Your task to perform on an android device: toggle airplane mode Image 0: 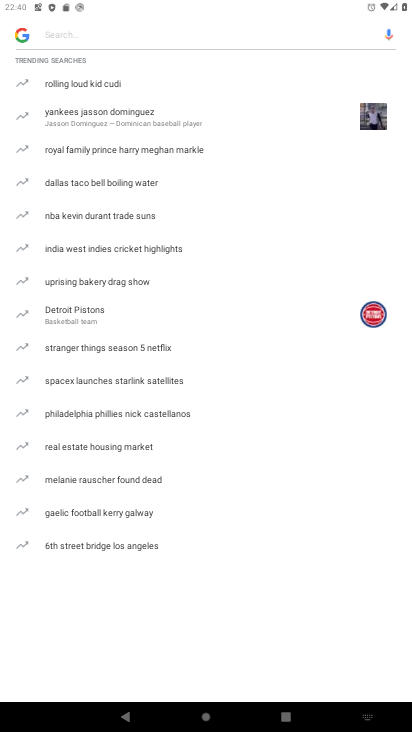
Step 0: press home button
Your task to perform on an android device: toggle airplane mode Image 1: 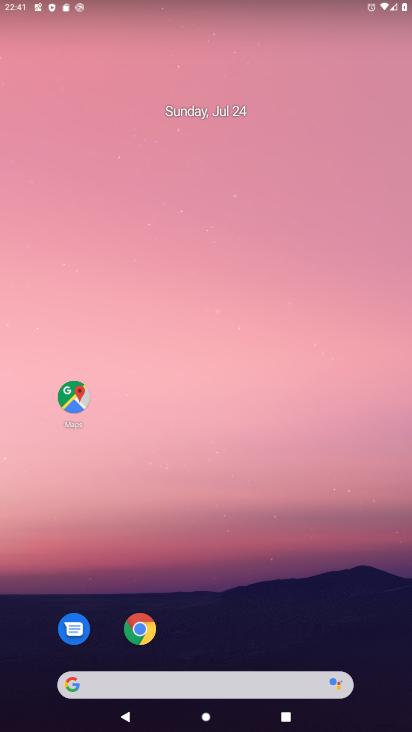
Step 1: drag from (197, 633) to (282, 338)
Your task to perform on an android device: toggle airplane mode Image 2: 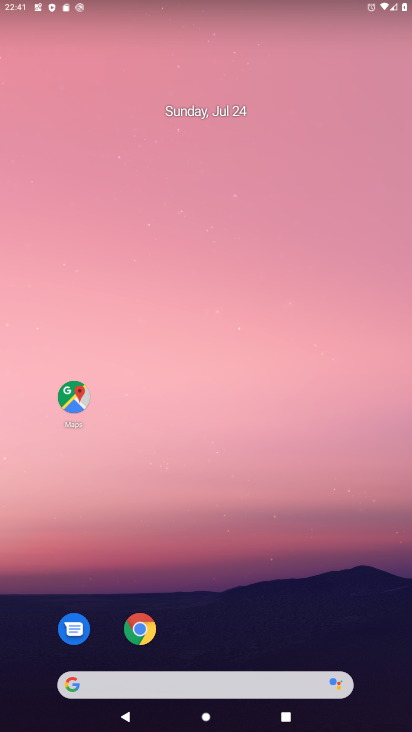
Step 2: drag from (180, 669) to (272, 414)
Your task to perform on an android device: toggle airplane mode Image 3: 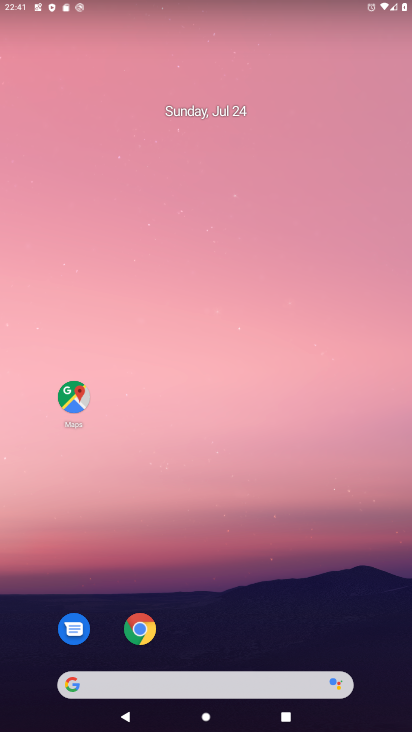
Step 3: drag from (205, 640) to (279, 249)
Your task to perform on an android device: toggle airplane mode Image 4: 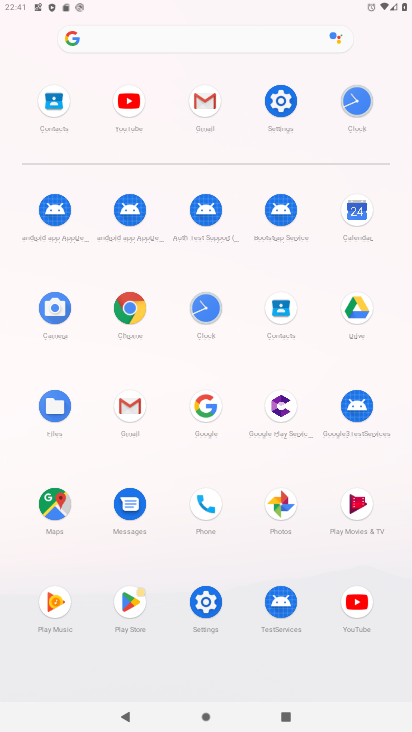
Step 4: click (269, 97)
Your task to perform on an android device: toggle airplane mode Image 5: 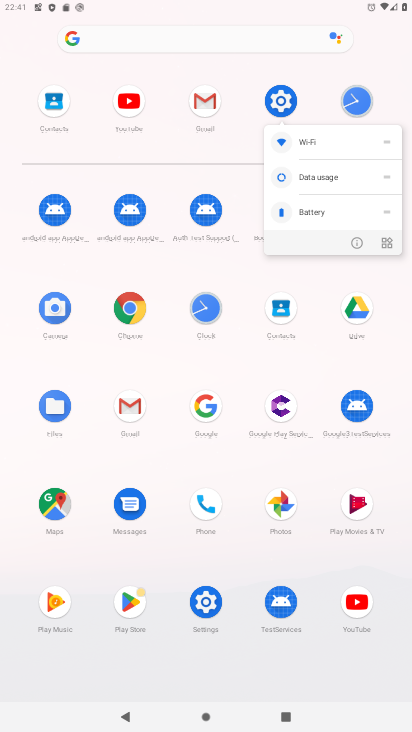
Step 5: click (213, 607)
Your task to perform on an android device: toggle airplane mode Image 6: 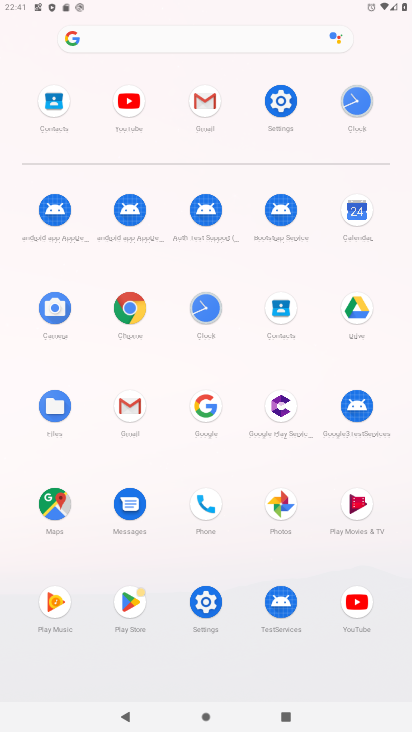
Step 6: click (212, 603)
Your task to perform on an android device: toggle airplane mode Image 7: 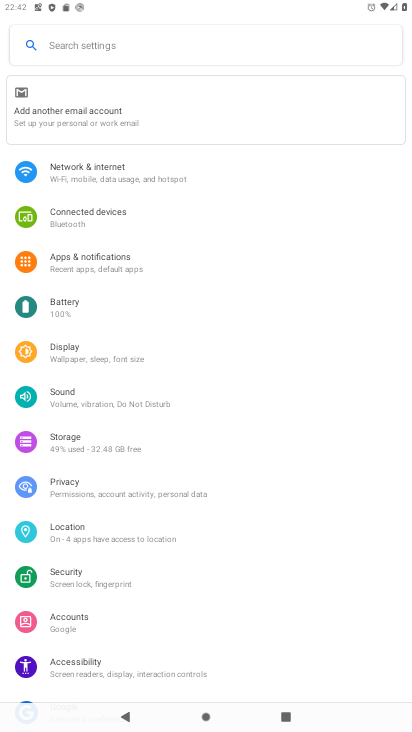
Step 7: drag from (125, 501) to (184, 290)
Your task to perform on an android device: toggle airplane mode Image 8: 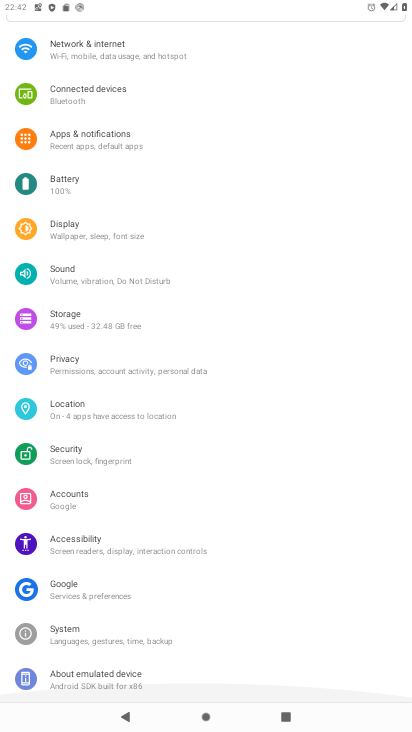
Step 8: drag from (217, 217) to (286, 711)
Your task to perform on an android device: toggle airplane mode Image 9: 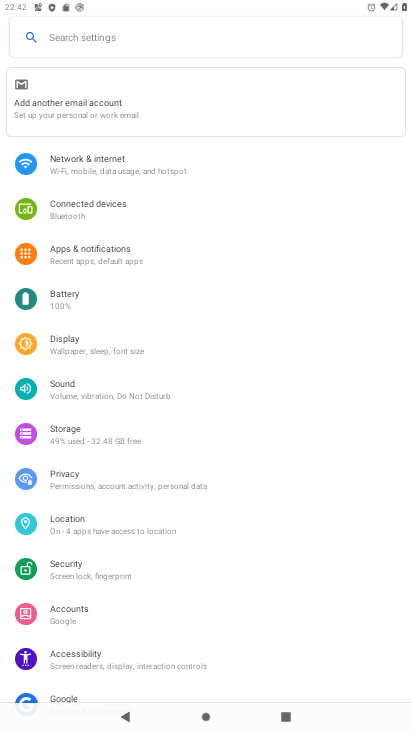
Step 9: click (192, 120)
Your task to perform on an android device: toggle airplane mode Image 10: 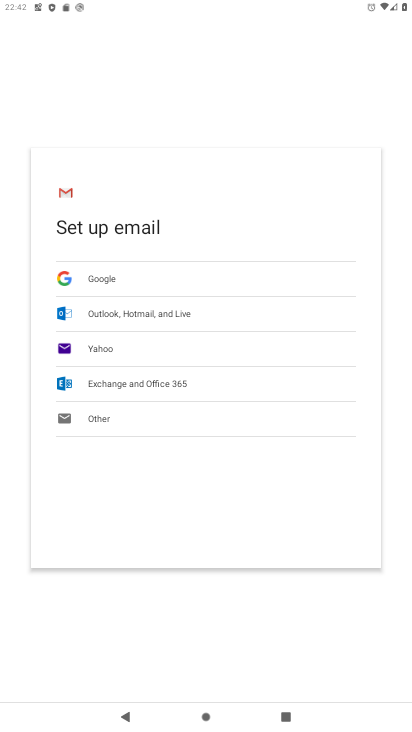
Step 10: press back button
Your task to perform on an android device: toggle airplane mode Image 11: 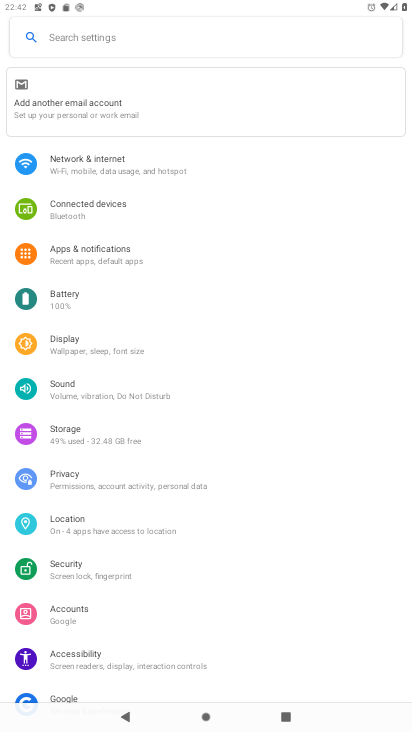
Step 11: click (153, 180)
Your task to perform on an android device: toggle airplane mode Image 12: 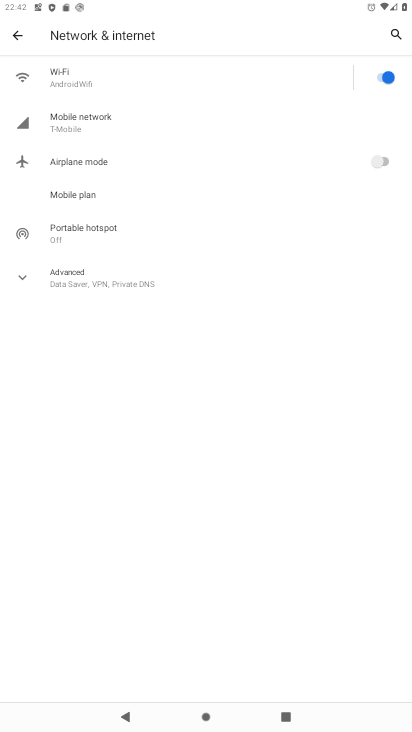
Step 12: drag from (117, 497) to (277, 139)
Your task to perform on an android device: toggle airplane mode Image 13: 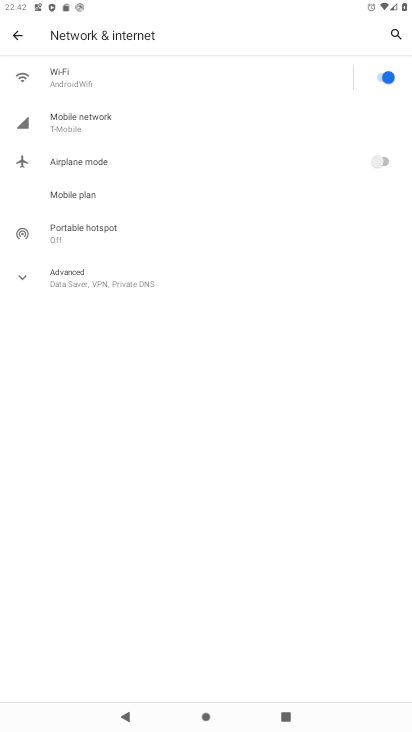
Step 13: click (283, 155)
Your task to perform on an android device: toggle airplane mode Image 14: 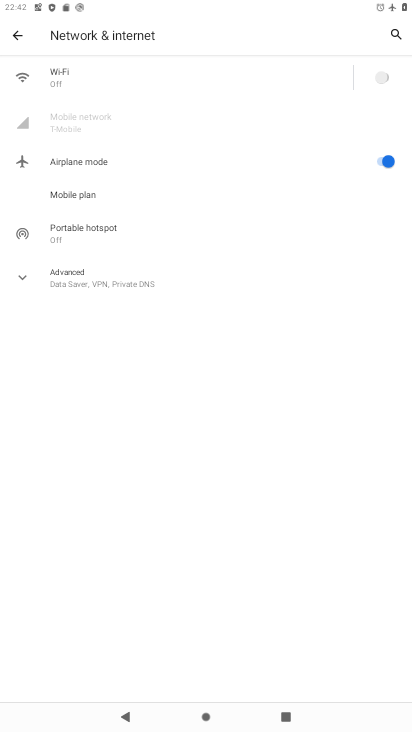
Step 14: task complete